Your task to perform on an android device: Open CNN.com Image 0: 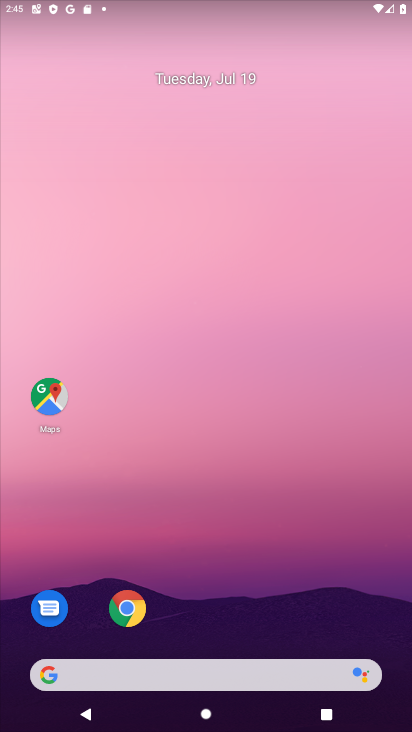
Step 0: drag from (302, 625) to (210, 166)
Your task to perform on an android device: Open CNN.com Image 1: 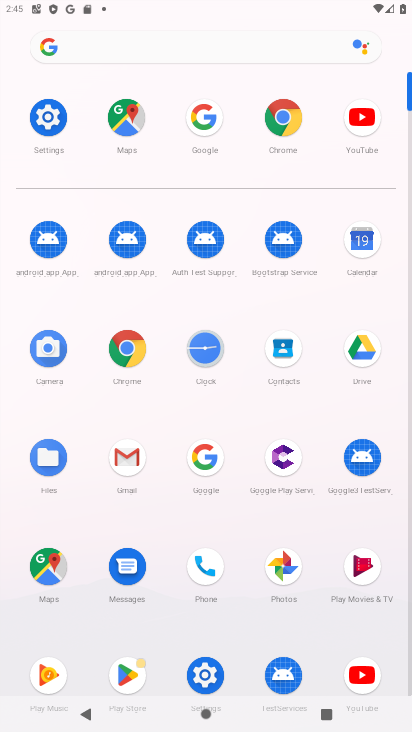
Step 1: click (293, 110)
Your task to perform on an android device: Open CNN.com Image 2: 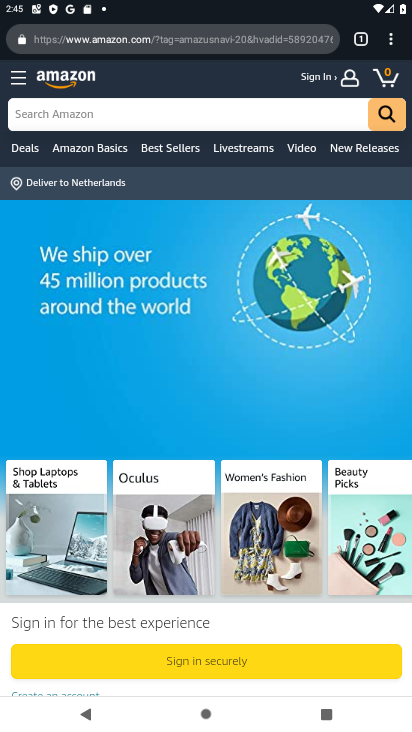
Step 2: click (268, 41)
Your task to perform on an android device: Open CNN.com Image 3: 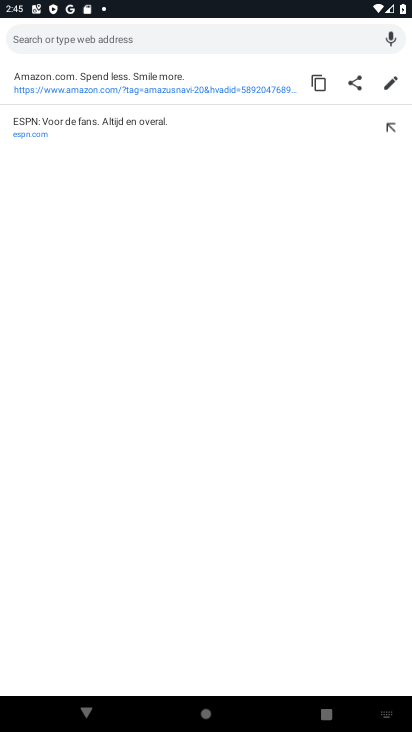
Step 3: type "cnn.com"
Your task to perform on an android device: Open CNN.com Image 4: 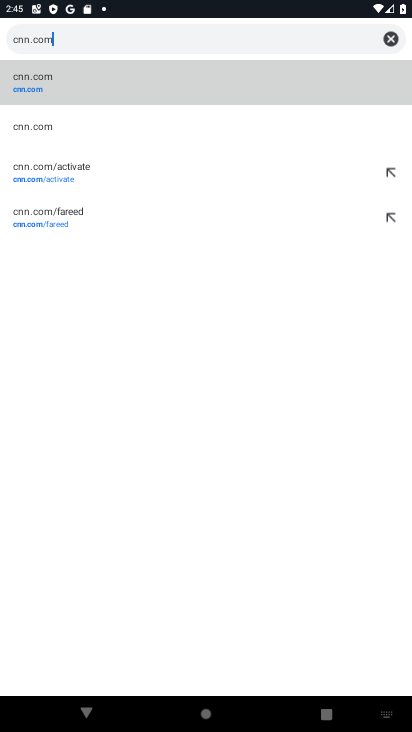
Step 4: click (43, 86)
Your task to perform on an android device: Open CNN.com Image 5: 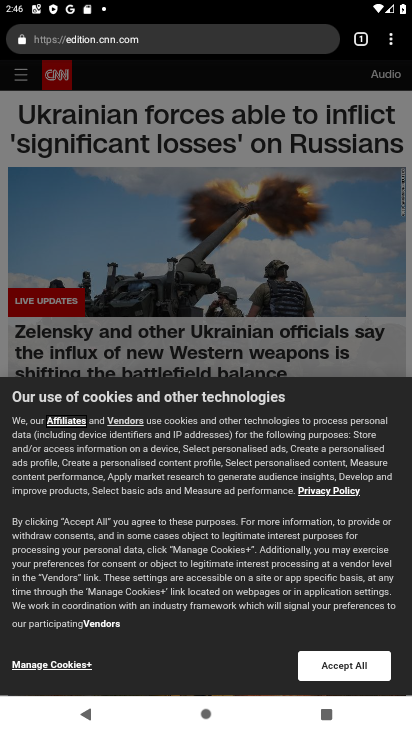
Step 5: task complete